Your task to perform on an android device: Open the calendar app, open the side menu, and click the "Day" option Image 0: 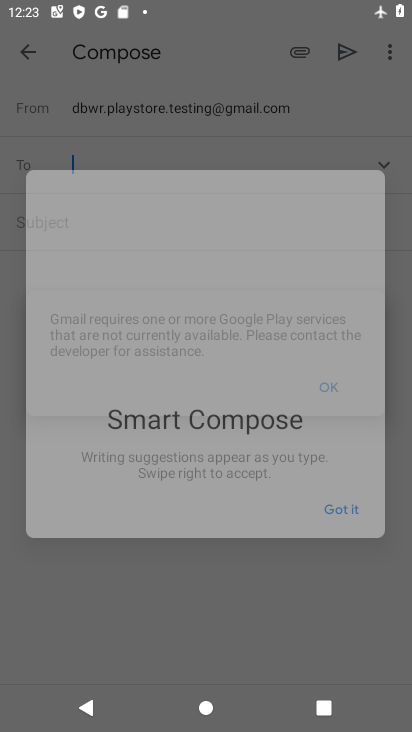
Step 0: click (266, 623)
Your task to perform on an android device: Open the calendar app, open the side menu, and click the "Day" option Image 1: 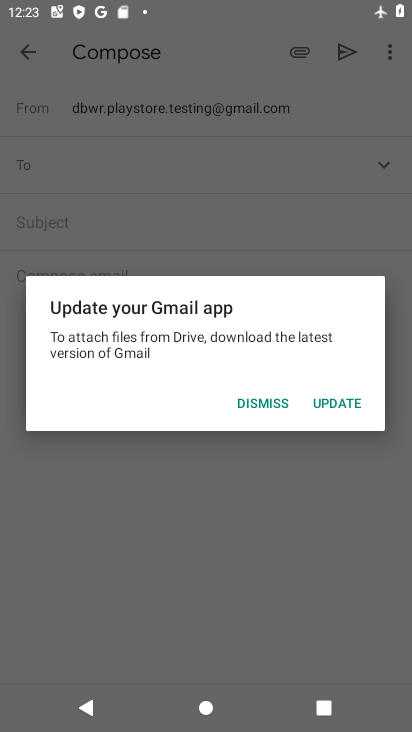
Step 1: press home button
Your task to perform on an android device: Open the calendar app, open the side menu, and click the "Day" option Image 2: 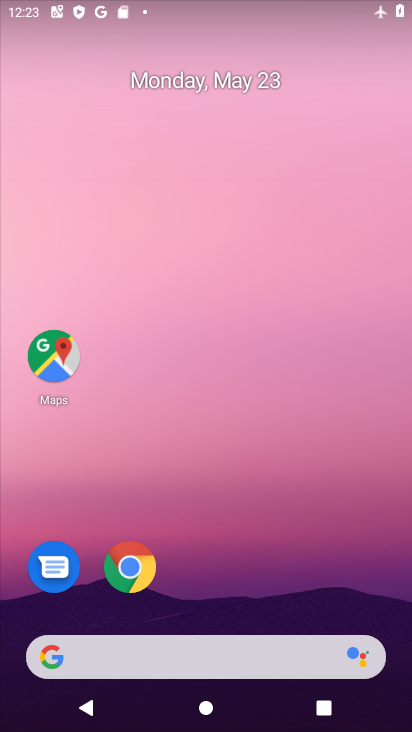
Step 2: drag from (211, 604) to (235, 1)
Your task to perform on an android device: Open the calendar app, open the side menu, and click the "Day" option Image 3: 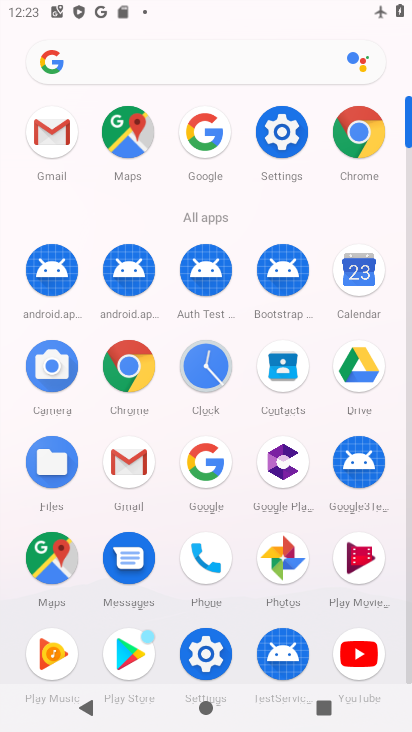
Step 3: click (407, 638)
Your task to perform on an android device: Open the calendar app, open the side menu, and click the "Day" option Image 4: 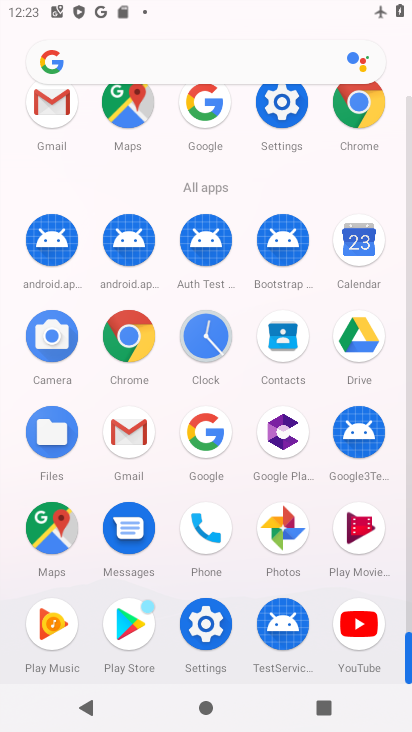
Step 4: click (349, 237)
Your task to perform on an android device: Open the calendar app, open the side menu, and click the "Day" option Image 5: 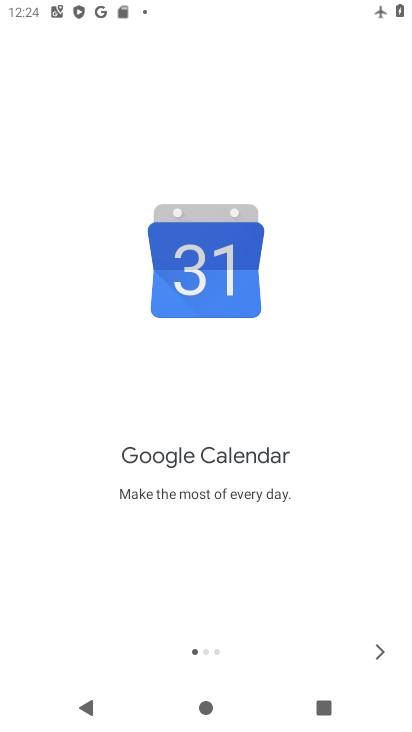
Step 5: click (375, 657)
Your task to perform on an android device: Open the calendar app, open the side menu, and click the "Day" option Image 6: 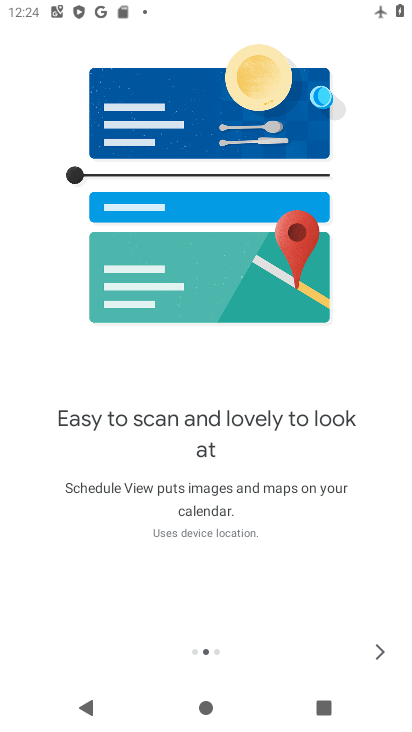
Step 6: click (375, 657)
Your task to perform on an android device: Open the calendar app, open the side menu, and click the "Day" option Image 7: 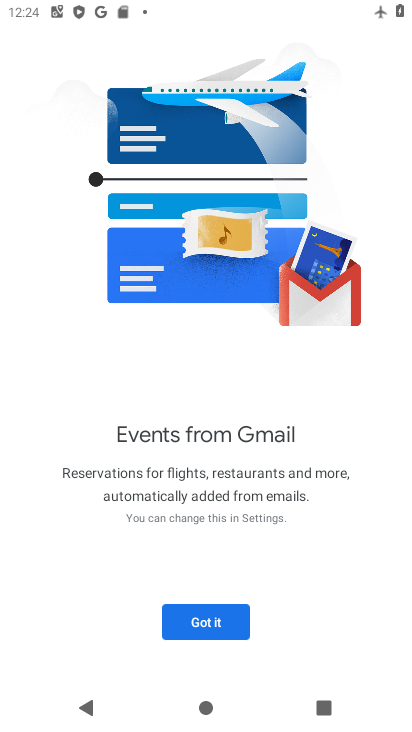
Step 7: click (233, 631)
Your task to perform on an android device: Open the calendar app, open the side menu, and click the "Day" option Image 8: 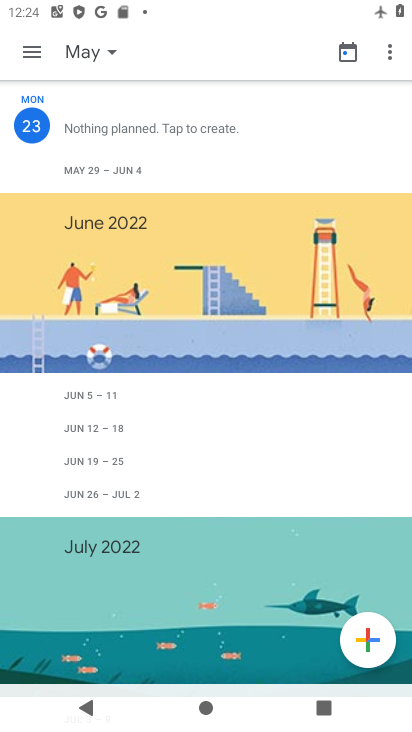
Step 8: click (23, 62)
Your task to perform on an android device: Open the calendar app, open the side menu, and click the "Day" option Image 9: 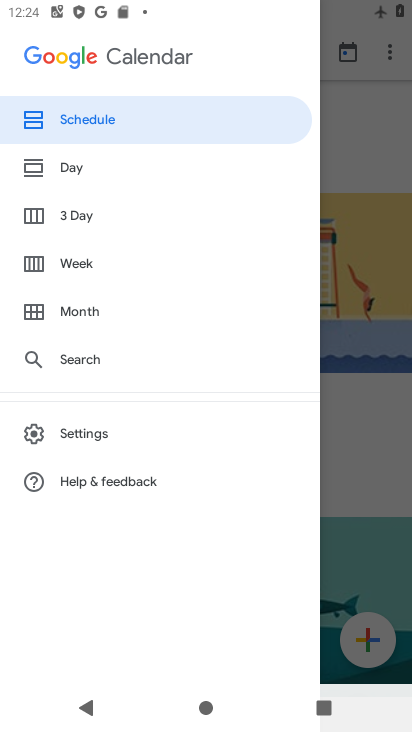
Step 9: click (89, 162)
Your task to perform on an android device: Open the calendar app, open the side menu, and click the "Day" option Image 10: 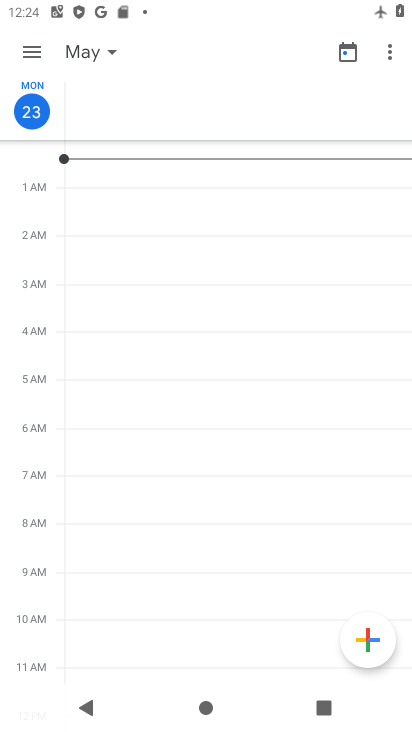
Step 10: task complete